Your task to perform on an android device: open sync settings in chrome Image 0: 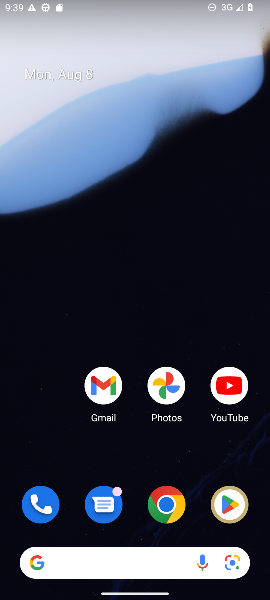
Step 0: drag from (132, 487) to (186, 14)
Your task to perform on an android device: open sync settings in chrome Image 1: 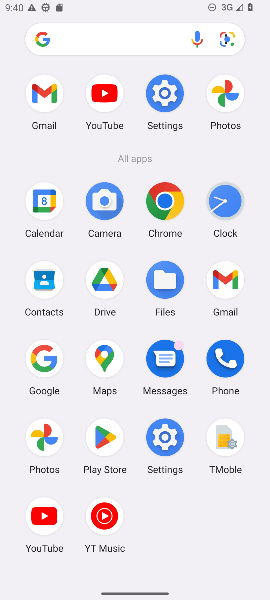
Step 1: click (160, 194)
Your task to perform on an android device: open sync settings in chrome Image 2: 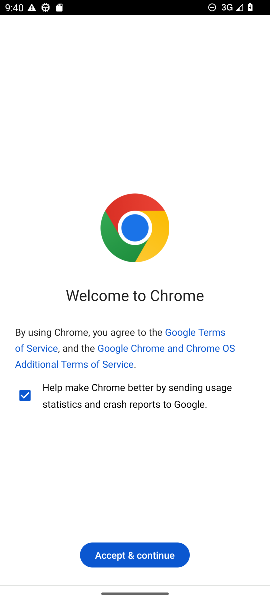
Step 2: click (139, 549)
Your task to perform on an android device: open sync settings in chrome Image 3: 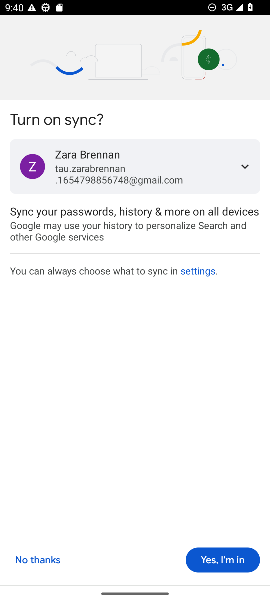
Step 3: click (245, 565)
Your task to perform on an android device: open sync settings in chrome Image 4: 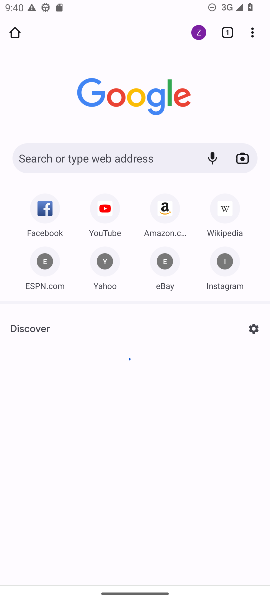
Step 4: click (250, 30)
Your task to perform on an android device: open sync settings in chrome Image 5: 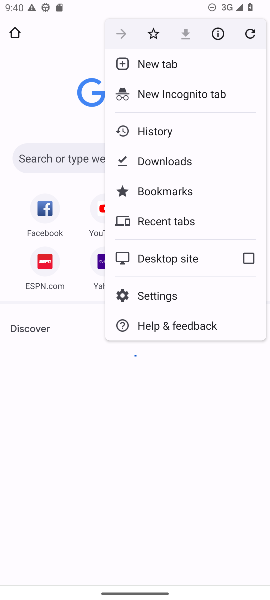
Step 5: click (164, 295)
Your task to perform on an android device: open sync settings in chrome Image 6: 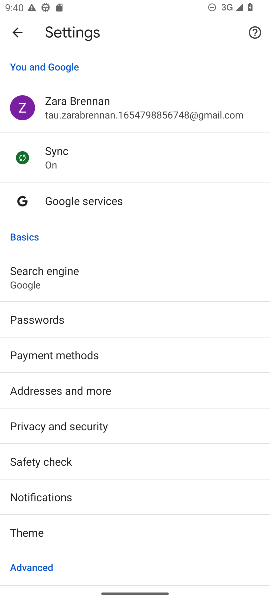
Step 6: click (87, 158)
Your task to perform on an android device: open sync settings in chrome Image 7: 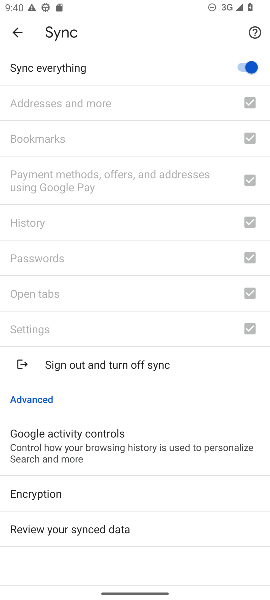
Step 7: task complete